Your task to perform on an android device: turn on sleep mode Image 0: 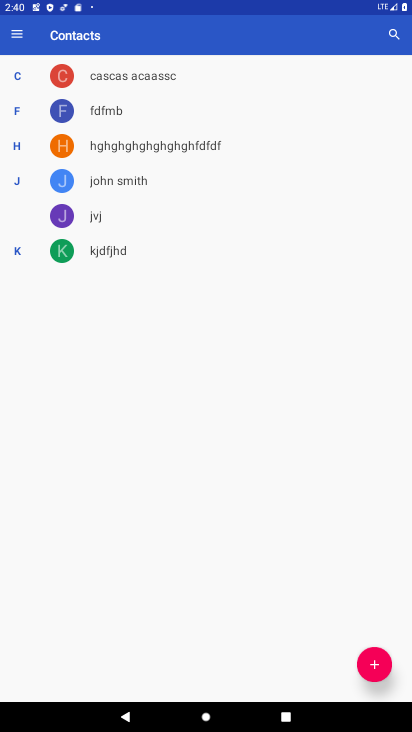
Step 0: press home button
Your task to perform on an android device: turn on sleep mode Image 1: 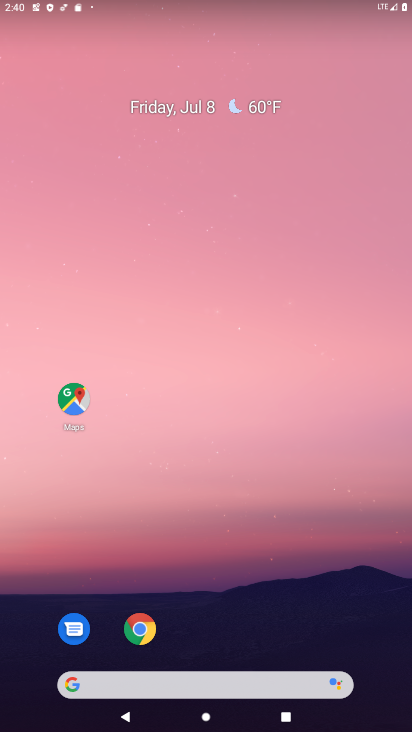
Step 1: drag from (230, 581) to (215, 131)
Your task to perform on an android device: turn on sleep mode Image 2: 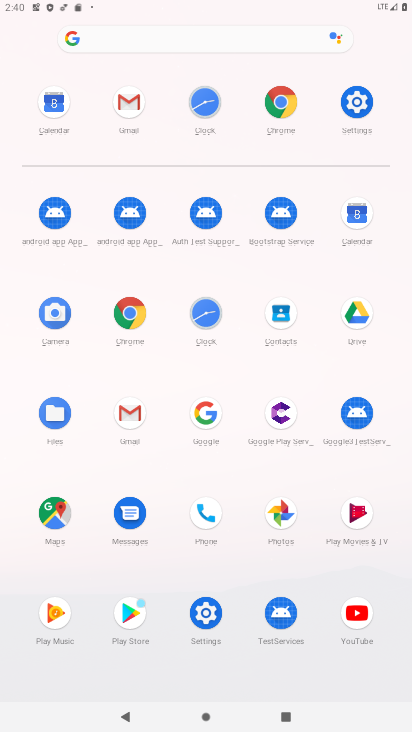
Step 2: click (366, 114)
Your task to perform on an android device: turn on sleep mode Image 3: 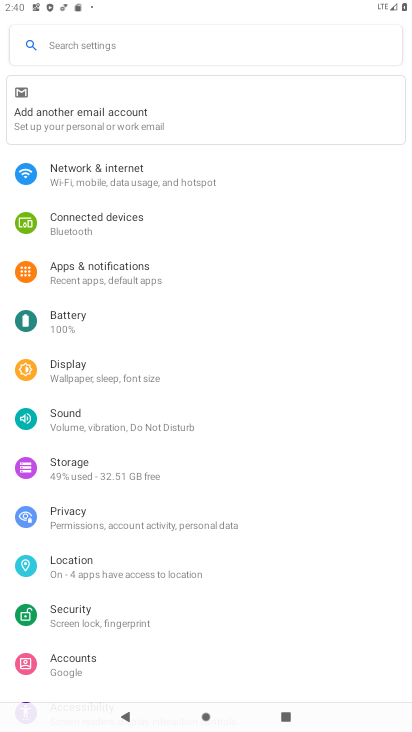
Step 3: click (109, 380)
Your task to perform on an android device: turn on sleep mode Image 4: 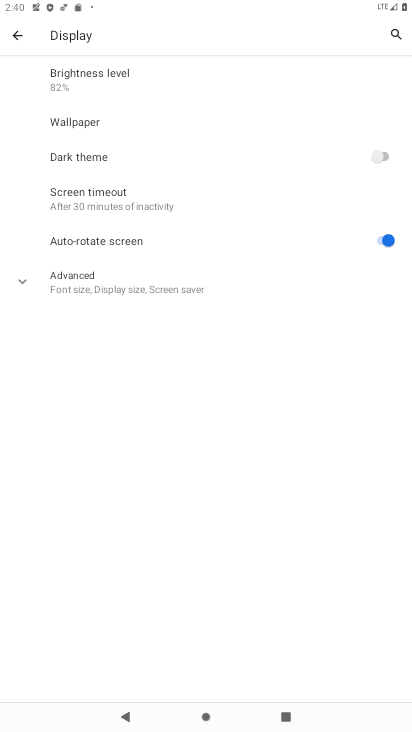
Step 4: click (125, 213)
Your task to perform on an android device: turn on sleep mode Image 5: 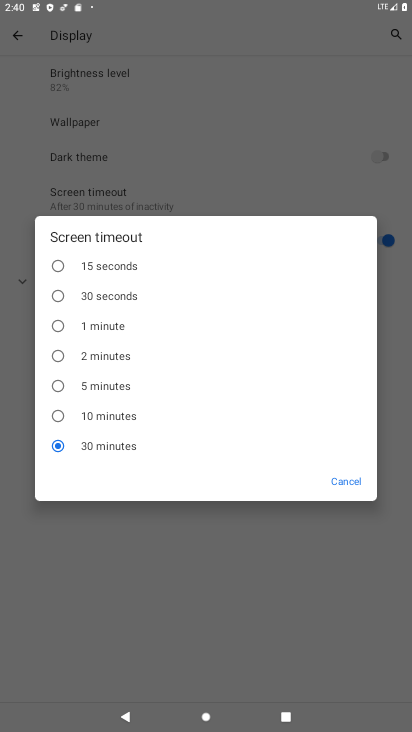
Step 5: click (92, 353)
Your task to perform on an android device: turn on sleep mode Image 6: 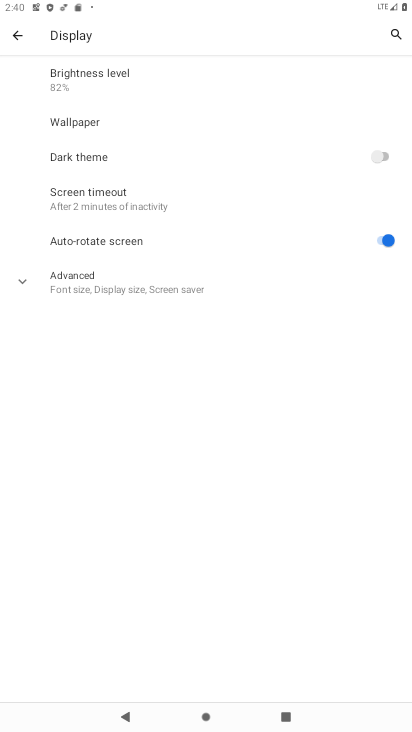
Step 6: task complete